Your task to perform on an android device: turn off sleep mode Image 0: 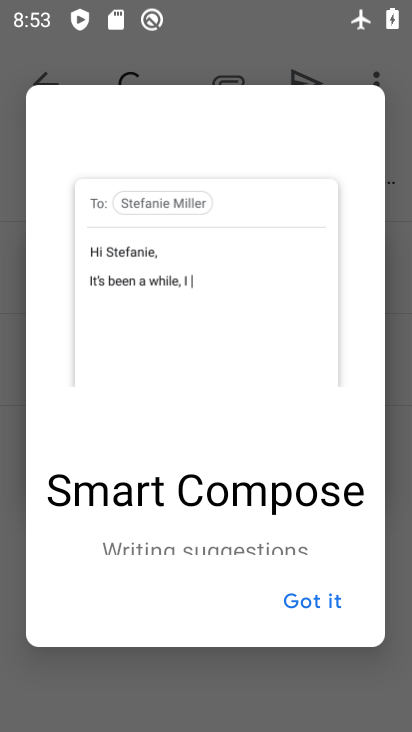
Step 0: press home button
Your task to perform on an android device: turn off sleep mode Image 1: 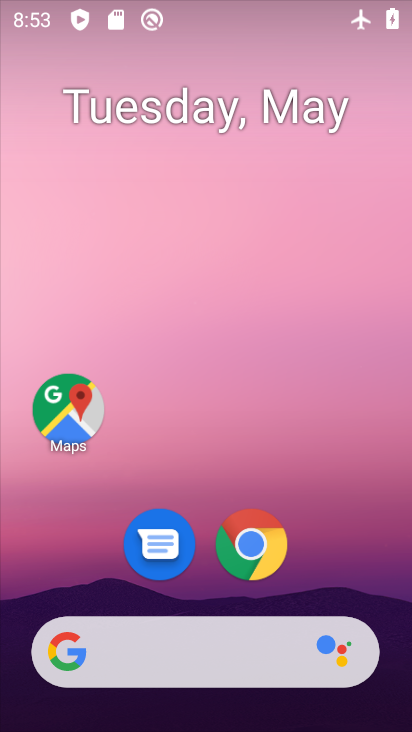
Step 1: drag from (373, 585) to (322, 163)
Your task to perform on an android device: turn off sleep mode Image 2: 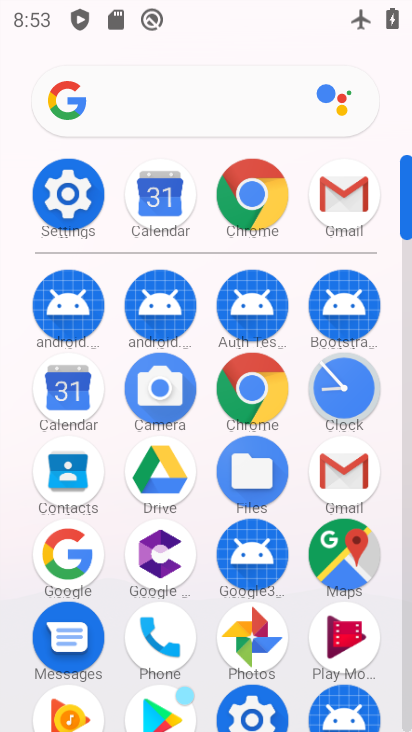
Step 2: click (91, 218)
Your task to perform on an android device: turn off sleep mode Image 3: 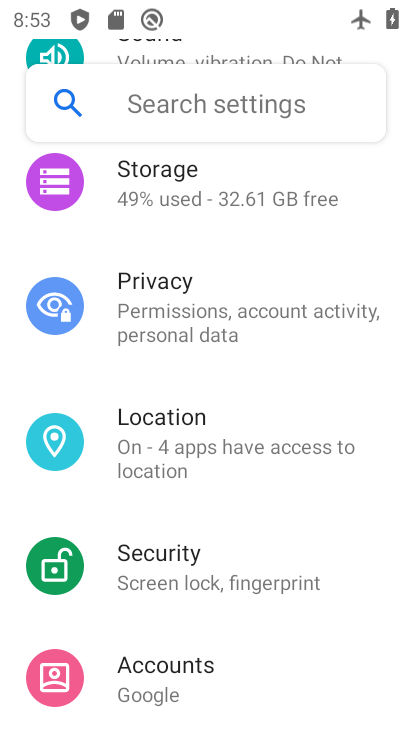
Step 3: click (193, 116)
Your task to perform on an android device: turn off sleep mode Image 4: 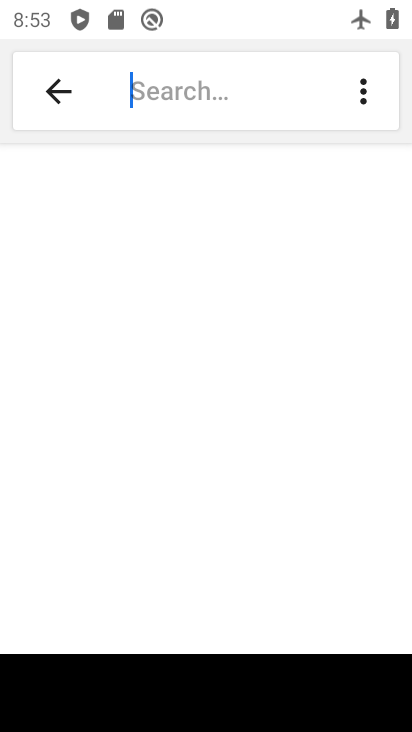
Step 4: type "sleep mode"
Your task to perform on an android device: turn off sleep mode Image 5: 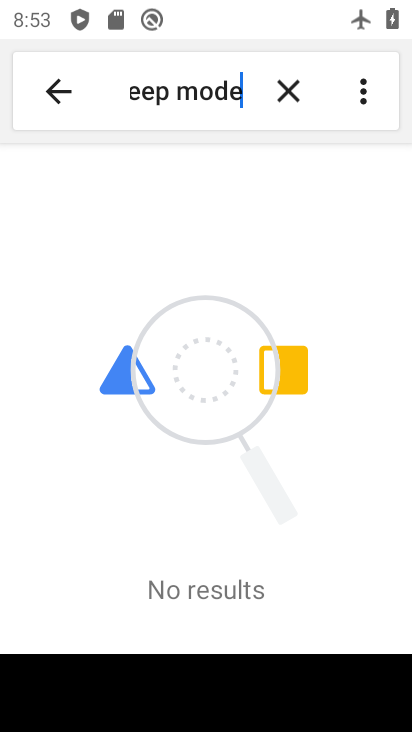
Step 5: task complete